Your task to perform on an android device: Go to CNN.com Image 0: 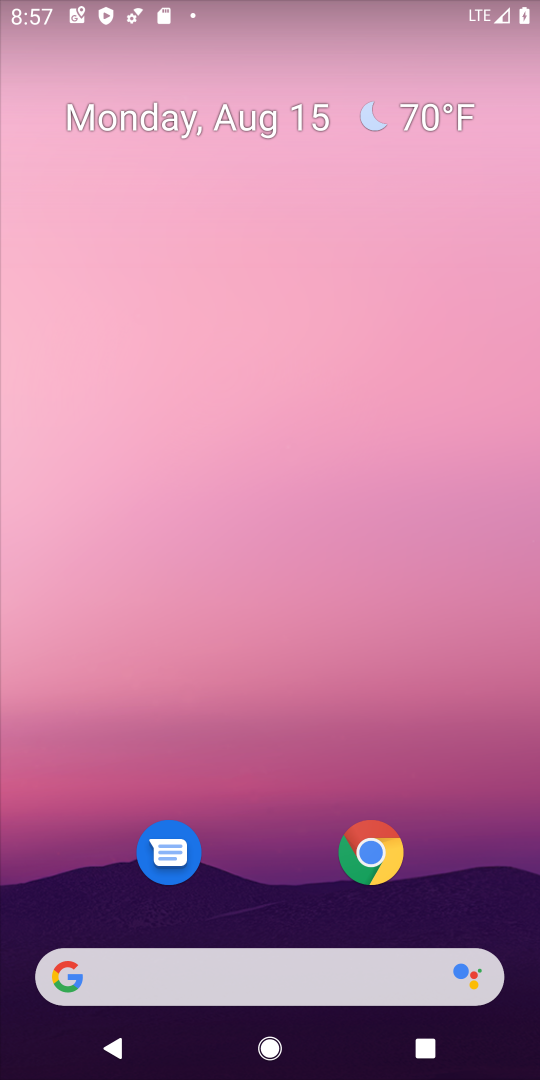
Step 0: click (367, 856)
Your task to perform on an android device: Go to CNN.com Image 1: 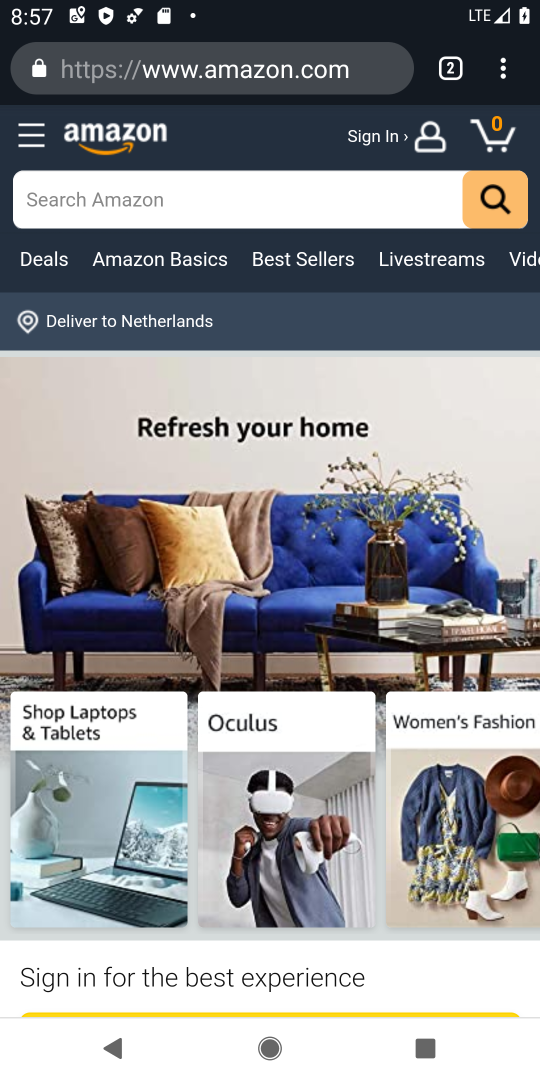
Step 1: click (378, 80)
Your task to perform on an android device: Go to CNN.com Image 2: 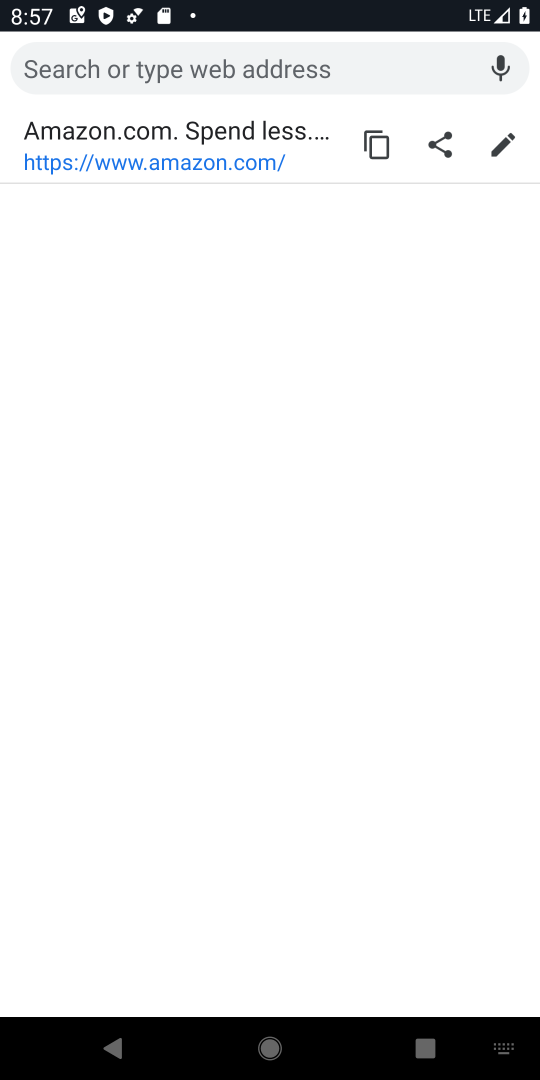
Step 2: type "CNN.com"
Your task to perform on an android device: Go to CNN.com Image 3: 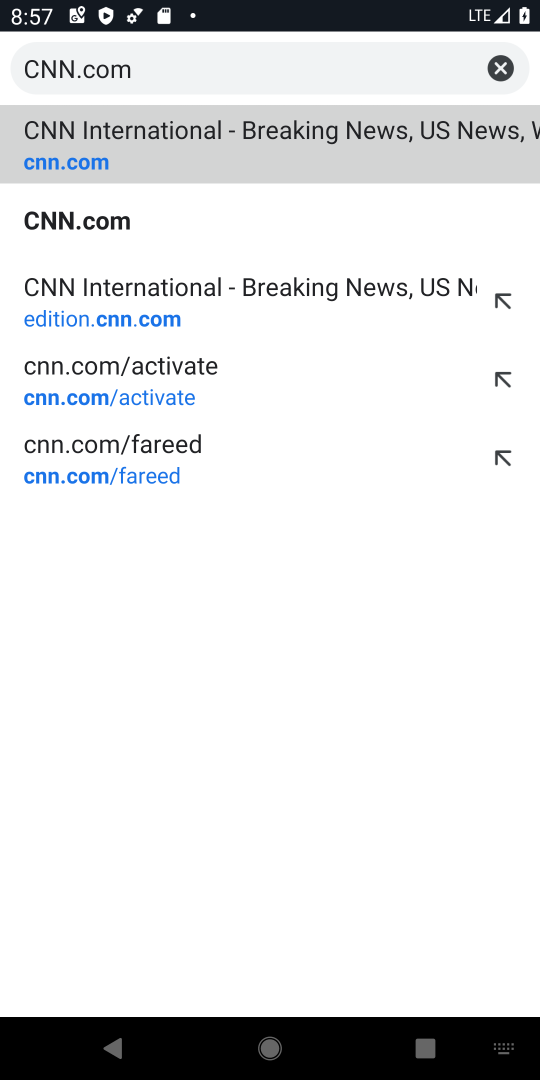
Step 3: click (107, 225)
Your task to perform on an android device: Go to CNN.com Image 4: 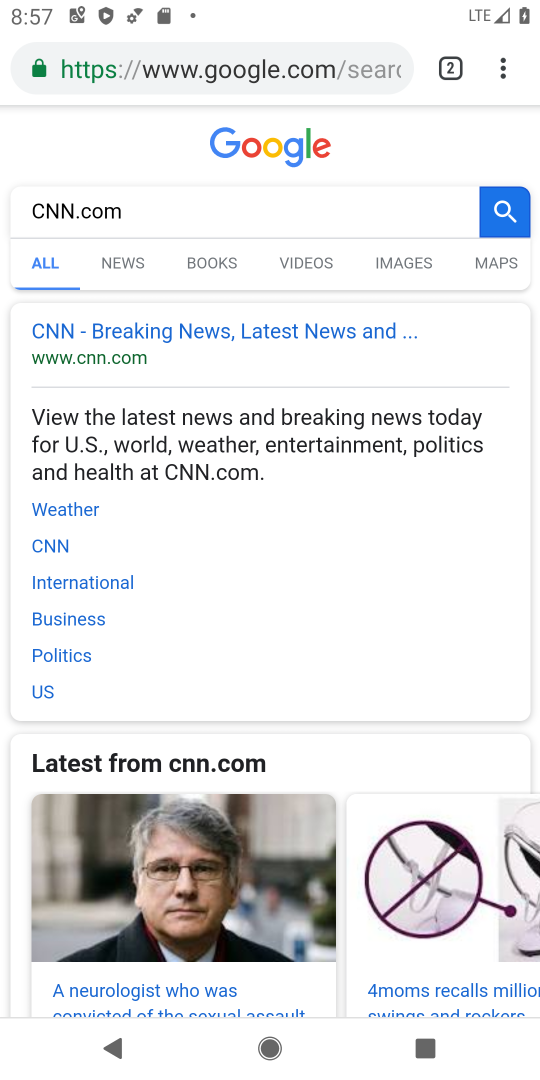
Step 4: click (248, 337)
Your task to perform on an android device: Go to CNN.com Image 5: 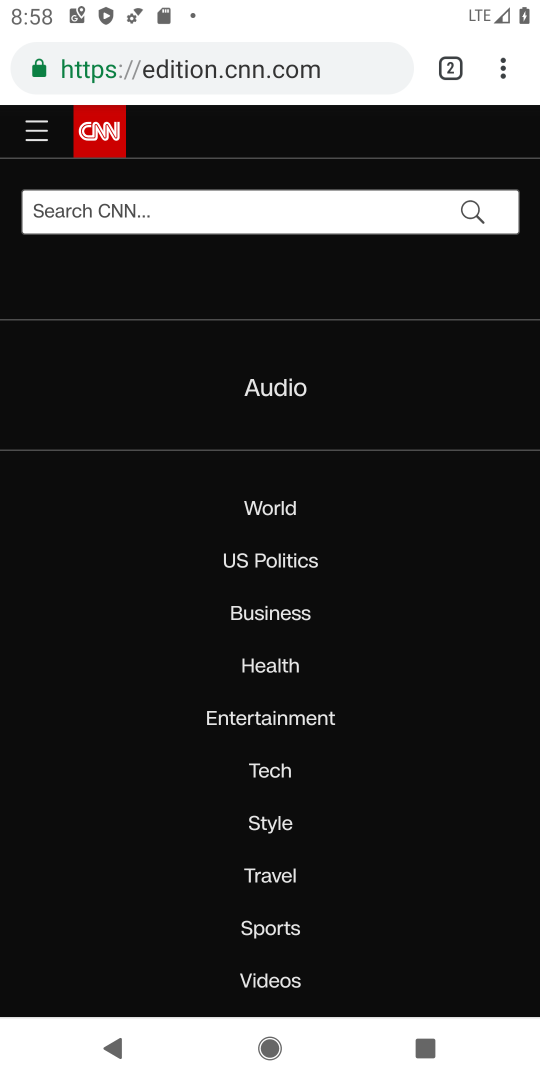
Step 5: task complete